Your task to perform on an android device: toggle data saver in the chrome app Image 0: 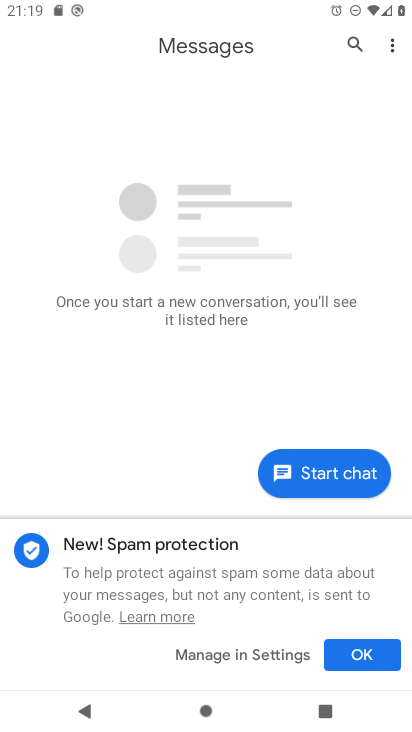
Step 0: press home button
Your task to perform on an android device: toggle data saver in the chrome app Image 1: 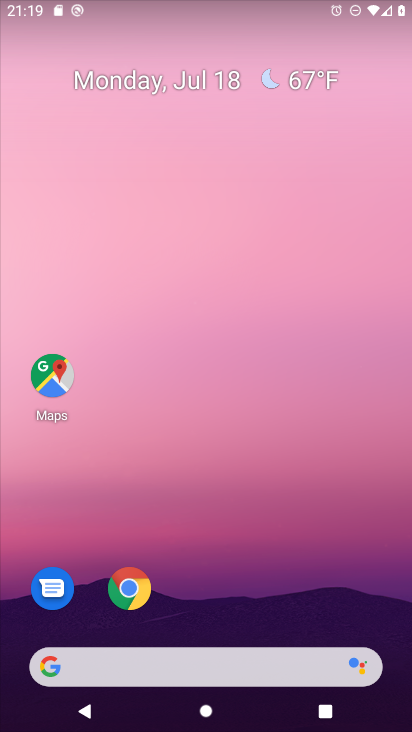
Step 1: click (134, 591)
Your task to perform on an android device: toggle data saver in the chrome app Image 2: 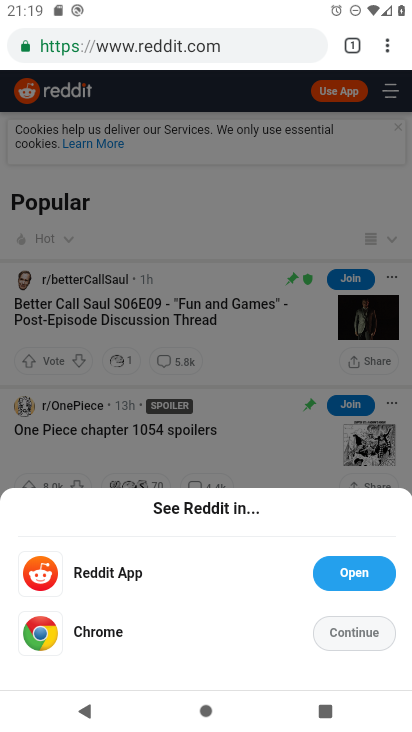
Step 2: click (387, 50)
Your task to perform on an android device: toggle data saver in the chrome app Image 3: 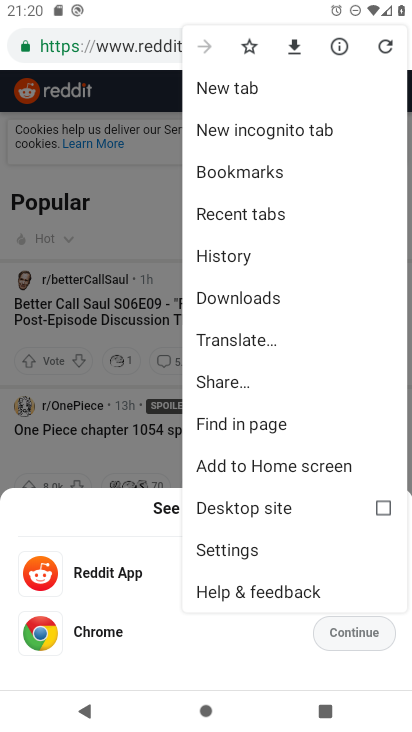
Step 3: click (246, 543)
Your task to perform on an android device: toggle data saver in the chrome app Image 4: 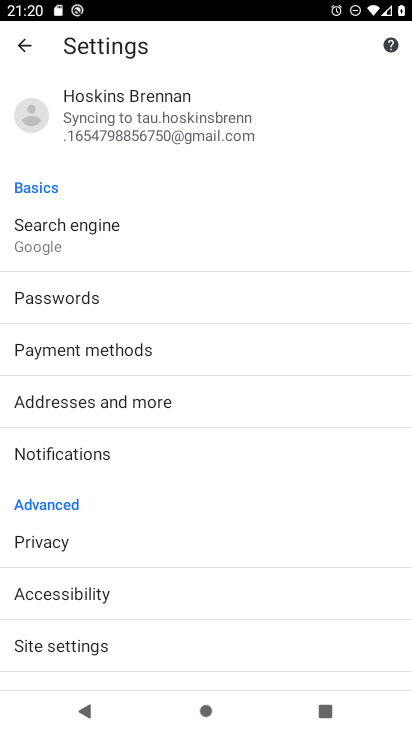
Step 4: drag from (194, 608) to (206, 367)
Your task to perform on an android device: toggle data saver in the chrome app Image 5: 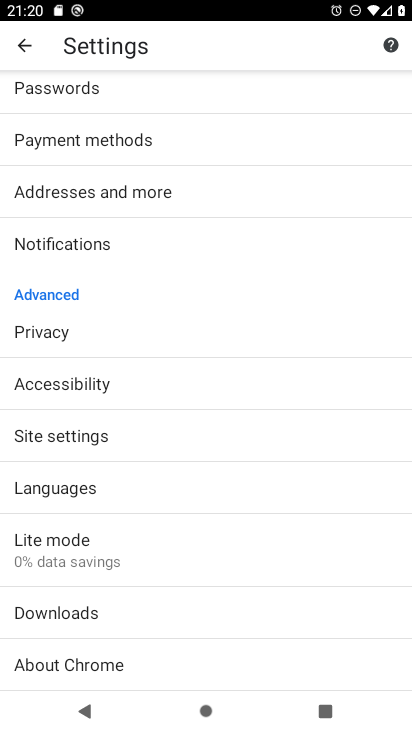
Step 5: click (48, 550)
Your task to perform on an android device: toggle data saver in the chrome app Image 6: 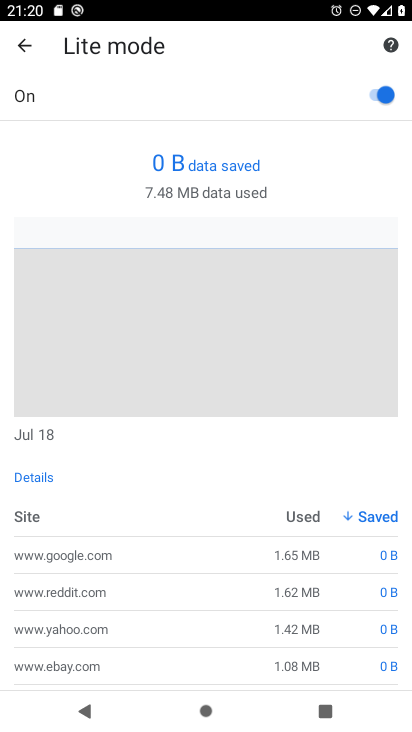
Step 6: click (372, 98)
Your task to perform on an android device: toggle data saver in the chrome app Image 7: 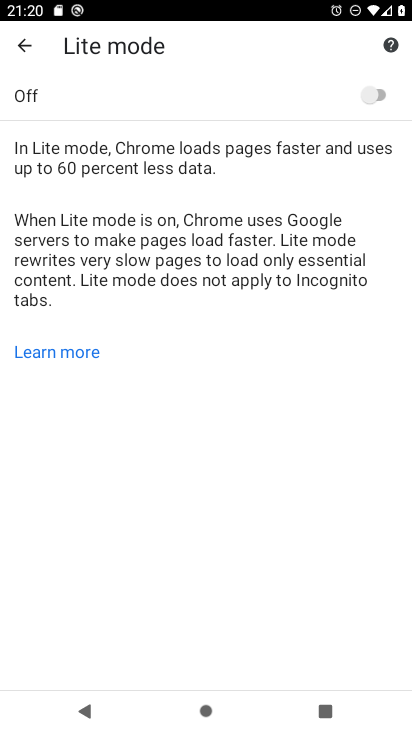
Step 7: task complete